Your task to perform on an android device: When is my next meeting? Image 0: 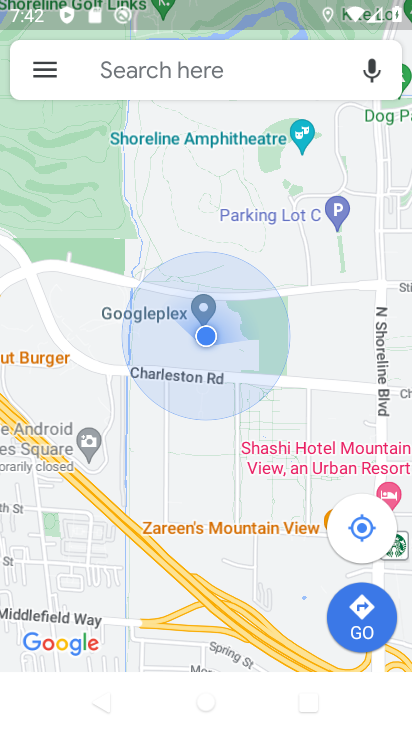
Step 0: press home button
Your task to perform on an android device: When is my next meeting? Image 1: 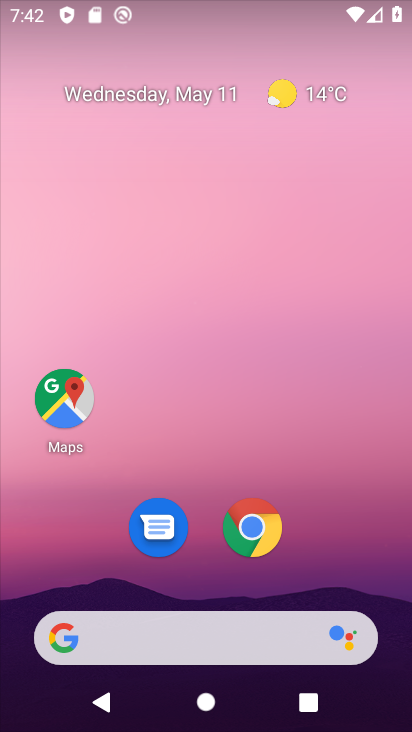
Step 1: click (157, 101)
Your task to perform on an android device: When is my next meeting? Image 2: 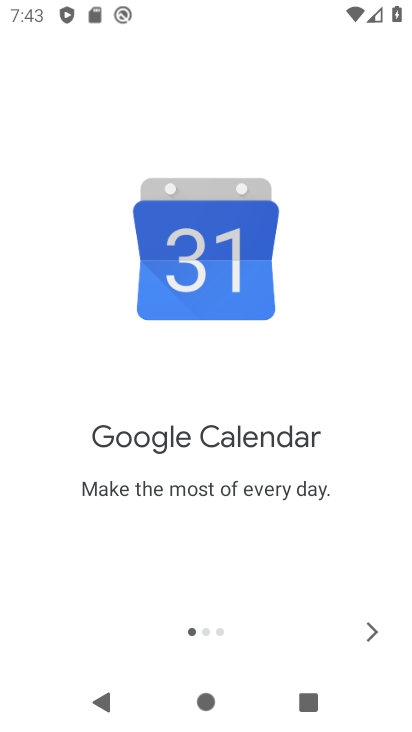
Step 2: click (372, 637)
Your task to perform on an android device: When is my next meeting? Image 3: 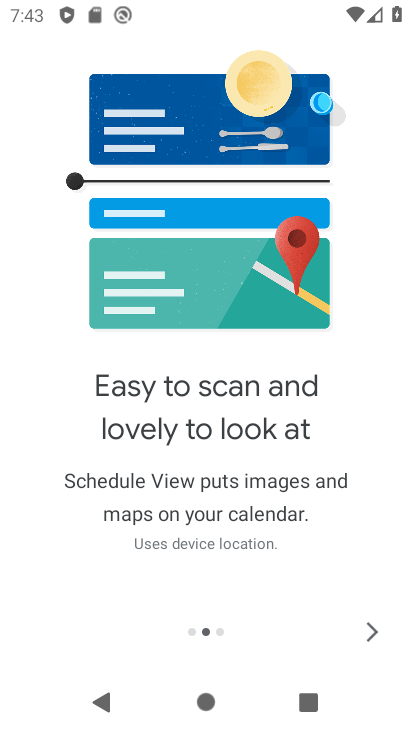
Step 3: click (372, 637)
Your task to perform on an android device: When is my next meeting? Image 4: 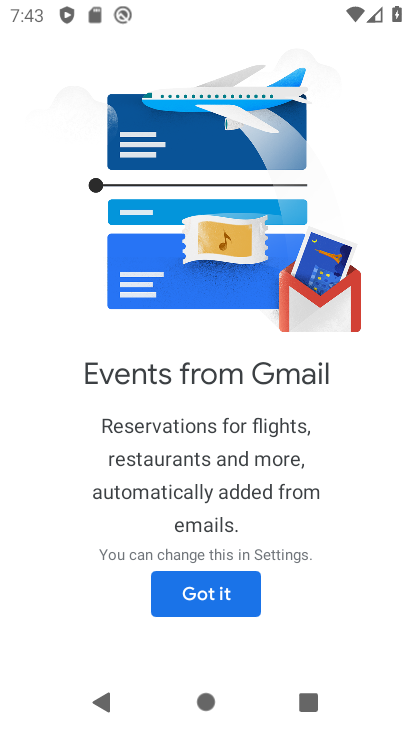
Step 4: click (175, 606)
Your task to perform on an android device: When is my next meeting? Image 5: 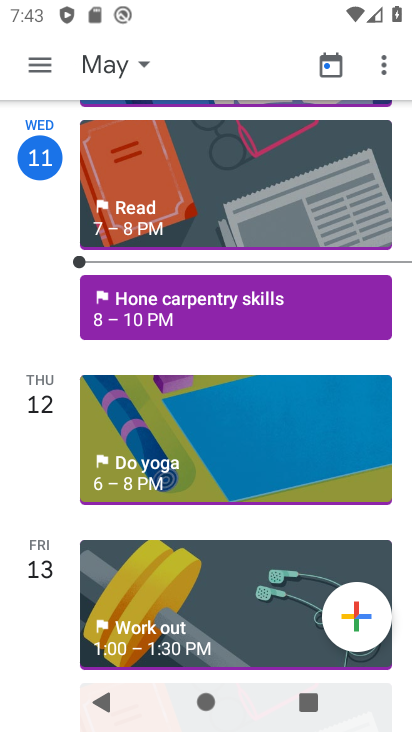
Step 5: task complete